Your task to perform on an android device: Search for Italian restaurants on Maps Image 0: 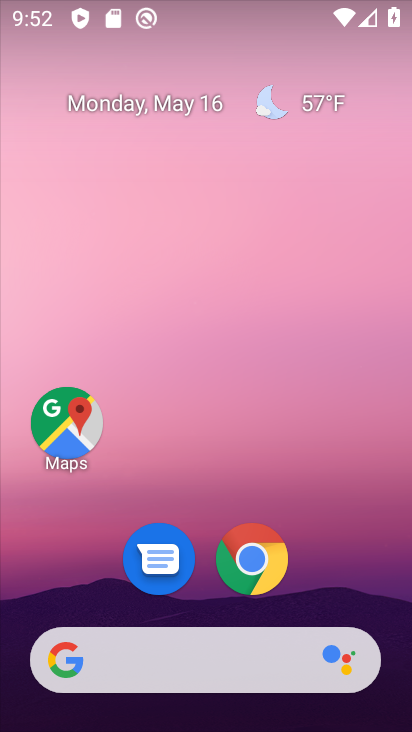
Step 0: click (79, 421)
Your task to perform on an android device: Search for Italian restaurants on Maps Image 1: 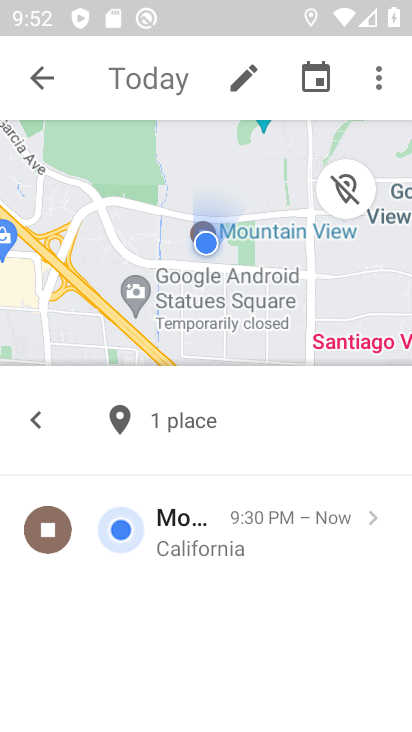
Step 1: click (26, 81)
Your task to perform on an android device: Search for Italian restaurants on Maps Image 2: 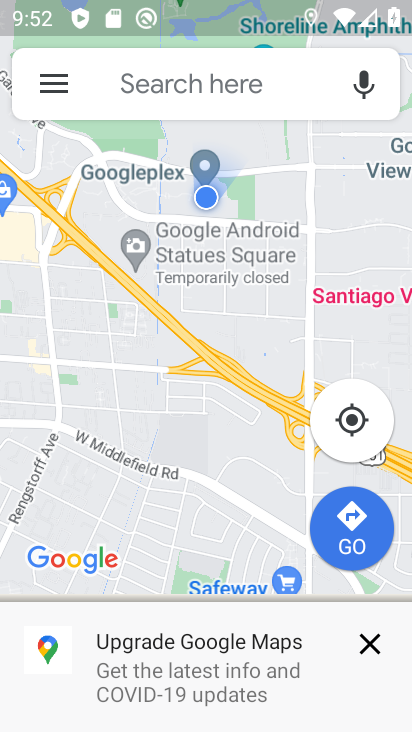
Step 2: click (198, 75)
Your task to perform on an android device: Search for Italian restaurants on Maps Image 3: 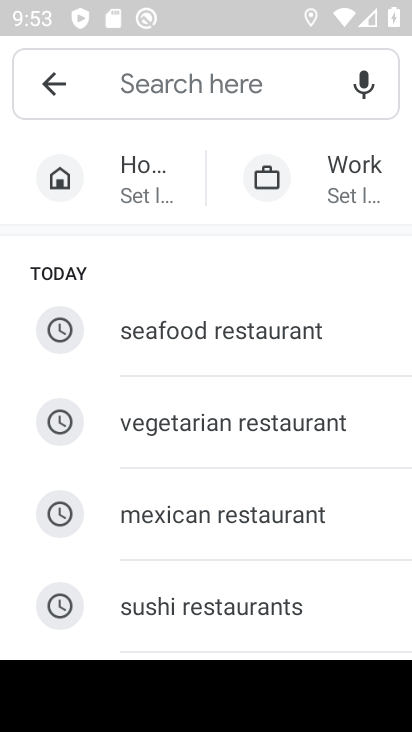
Step 3: type "Italian restaurants"
Your task to perform on an android device: Search for Italian restaurants on Maps Image 4: 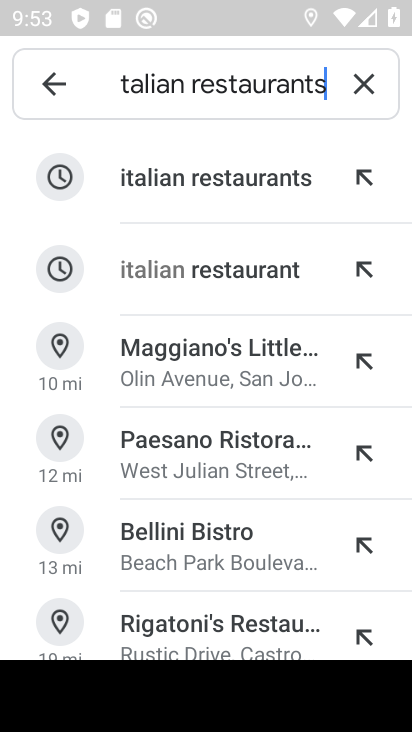
Step 4: click (248, 179)
Your task to perform on an android device: Search for Italian restaurants on Maps Image 5: 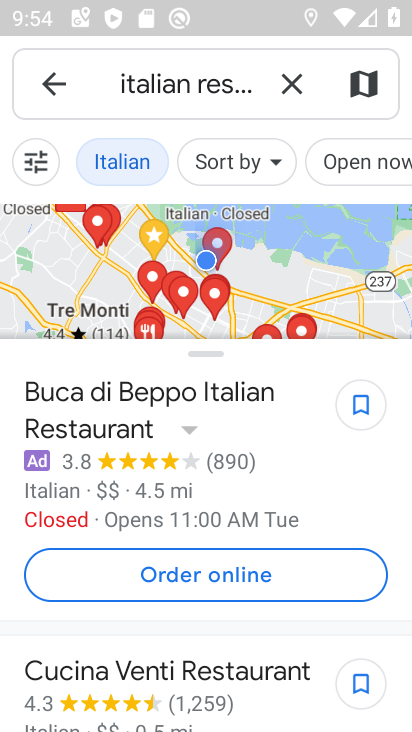
Step 5: task complete